Your task to perform on an android device: Look up the best rated gaming chair on Target. Image 0: 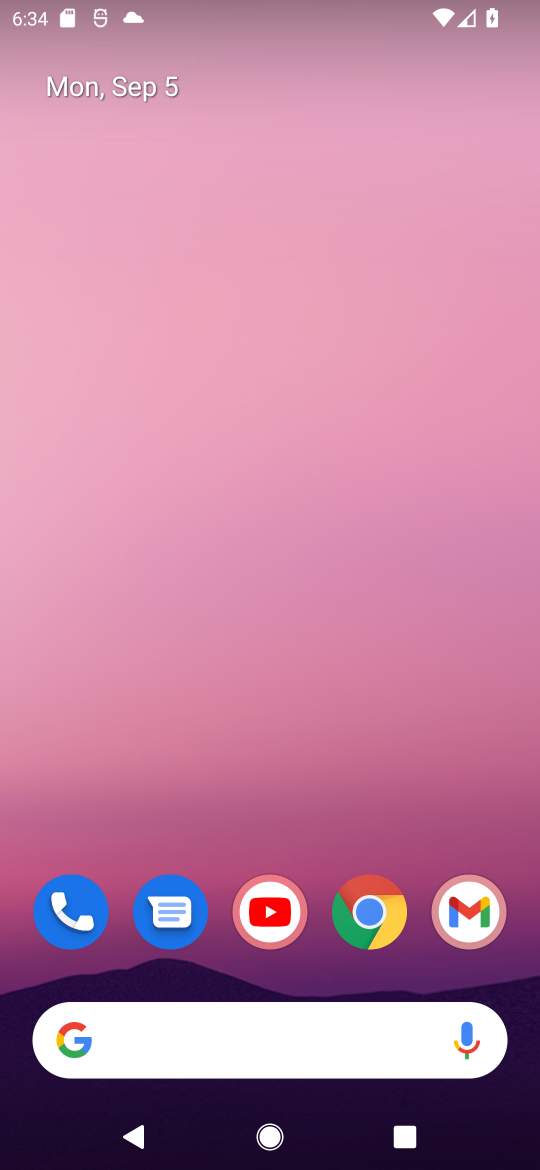
Step 0: click (363, 917)
Your task to perform on an android device: Look up the best rated gaming chair on Target. Image 1: 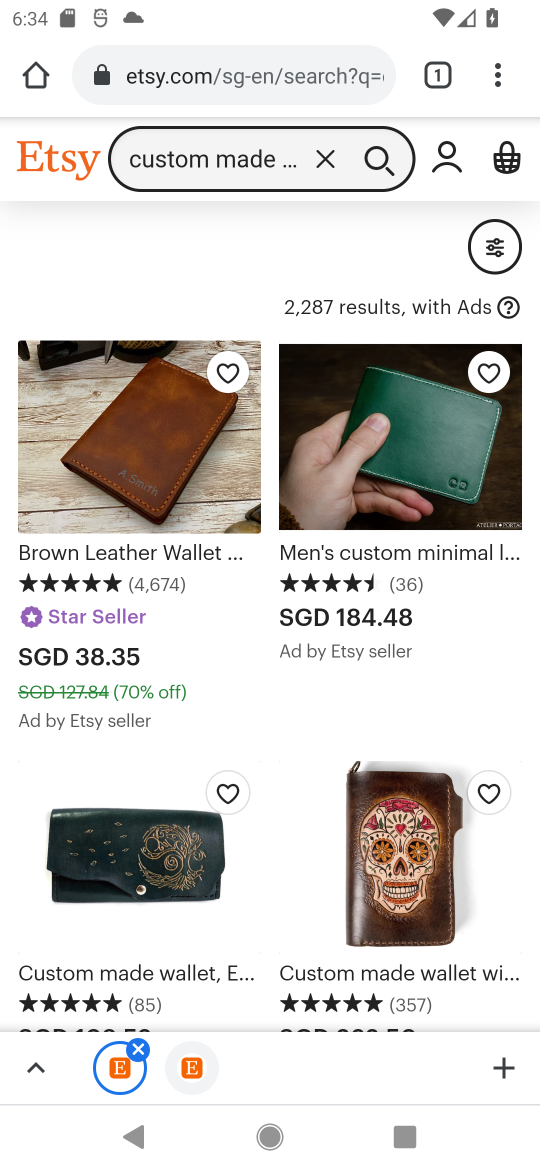
Step 1: click (275, 70)
Your task to perform on an android device: Look up the best rated gaming chair on Target. Image 2: 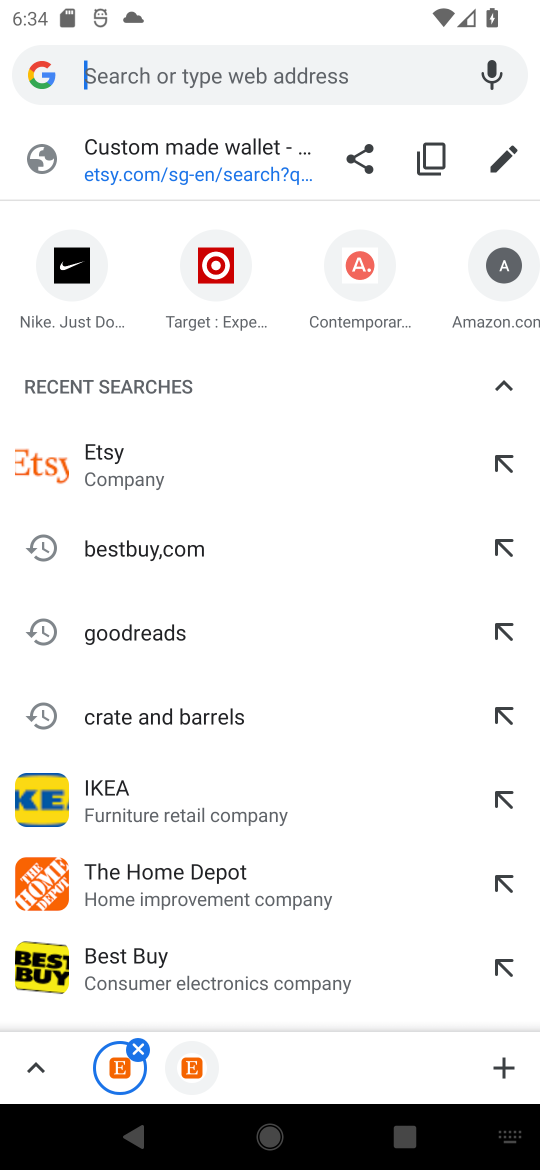
Step 2: type "Target"
Your task to perform on an android device: Look up the best rated gaming chair on Target. Image 3: 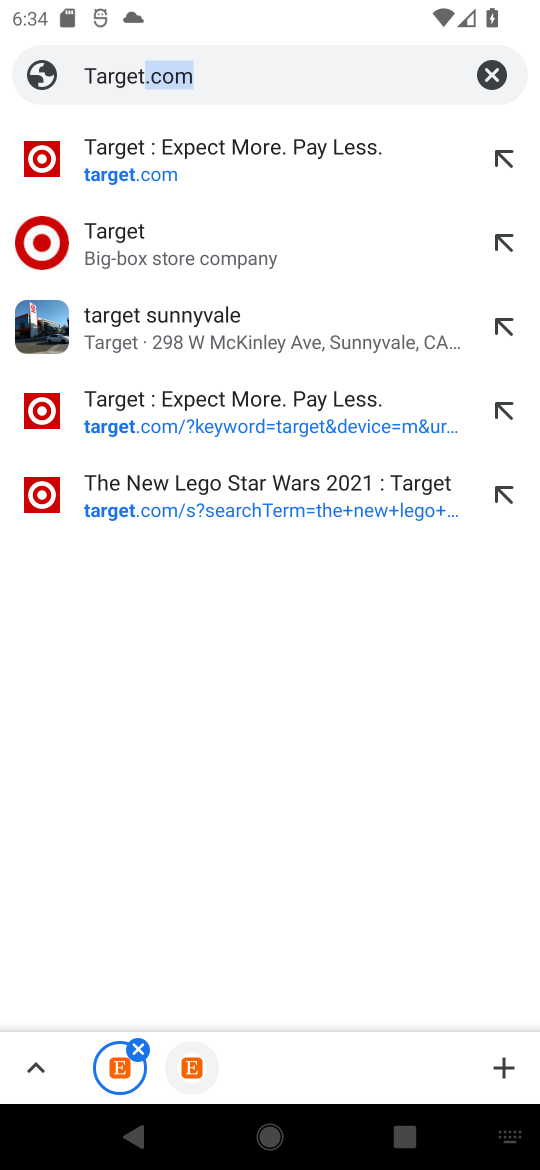
Step 3: click (159, 173)
Your task to perform on an android device: Look up the best rated gaming chair on Target. Image 4: 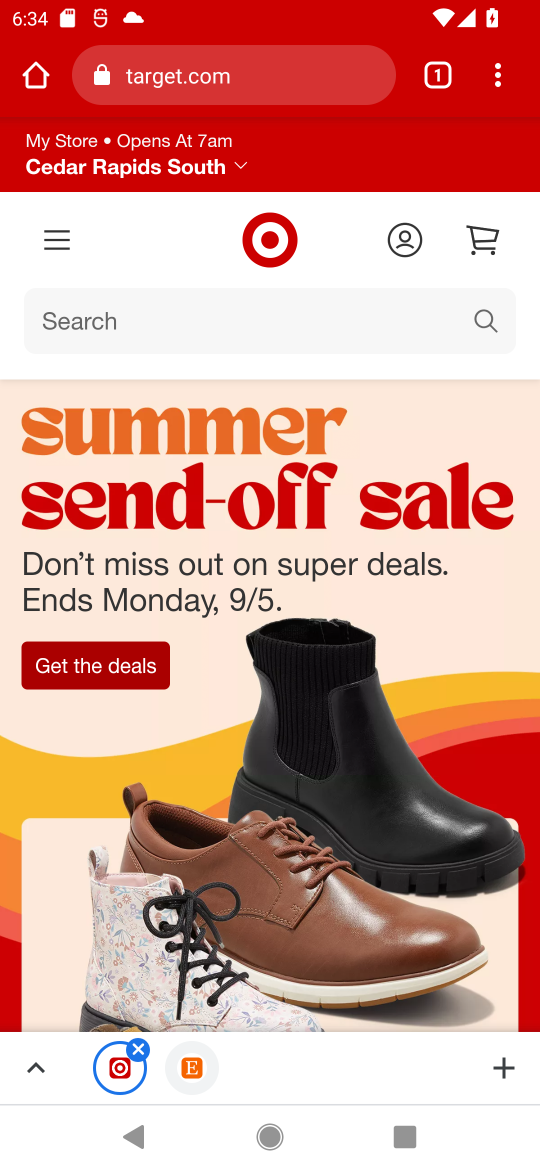
Step 4: click (321, 328)
Your task to perform on an android device: Look up the best rated gaming chair on Target. Image 5: 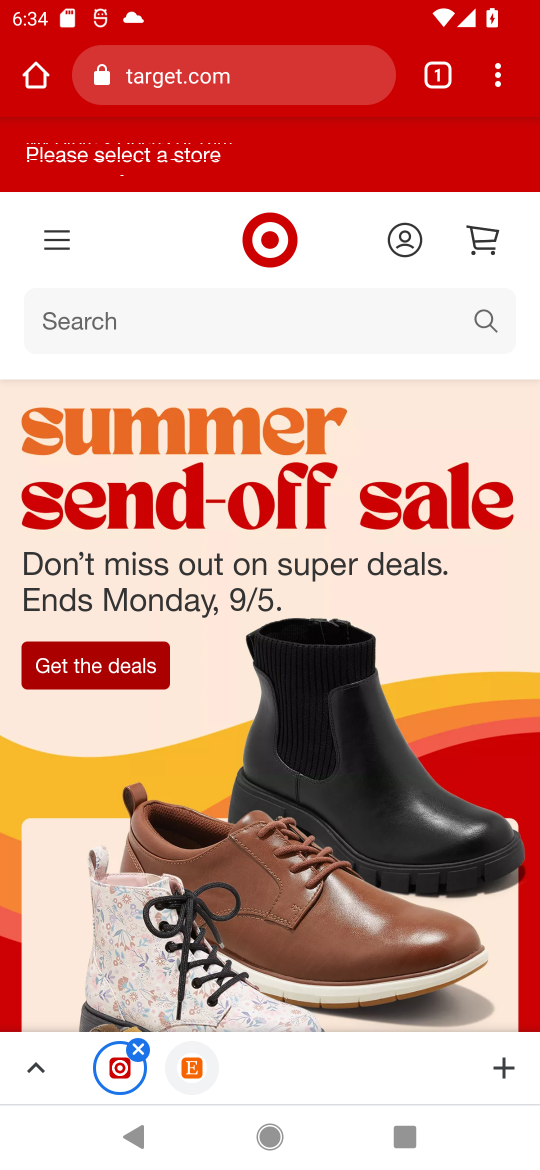
Step 5: click (232, 311)
Your task to perform on an android device: Look up the best rated gaming chair on Target. Image 6: 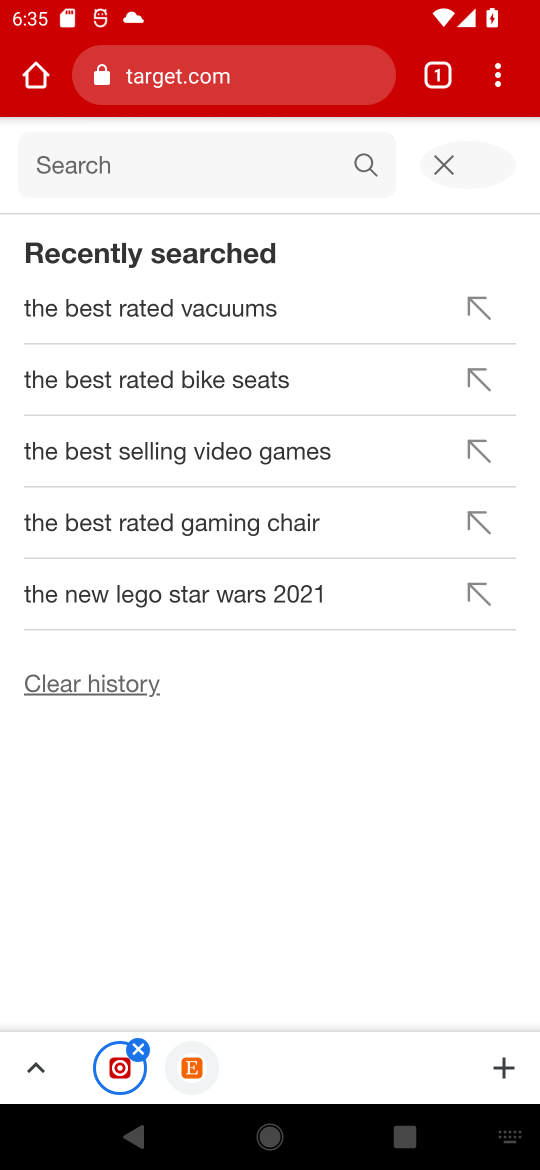
Step 6: type "the best rated gaming chair"
Your task to perform on an android device: Look up the best rated gaming chair on Target. Image 7: 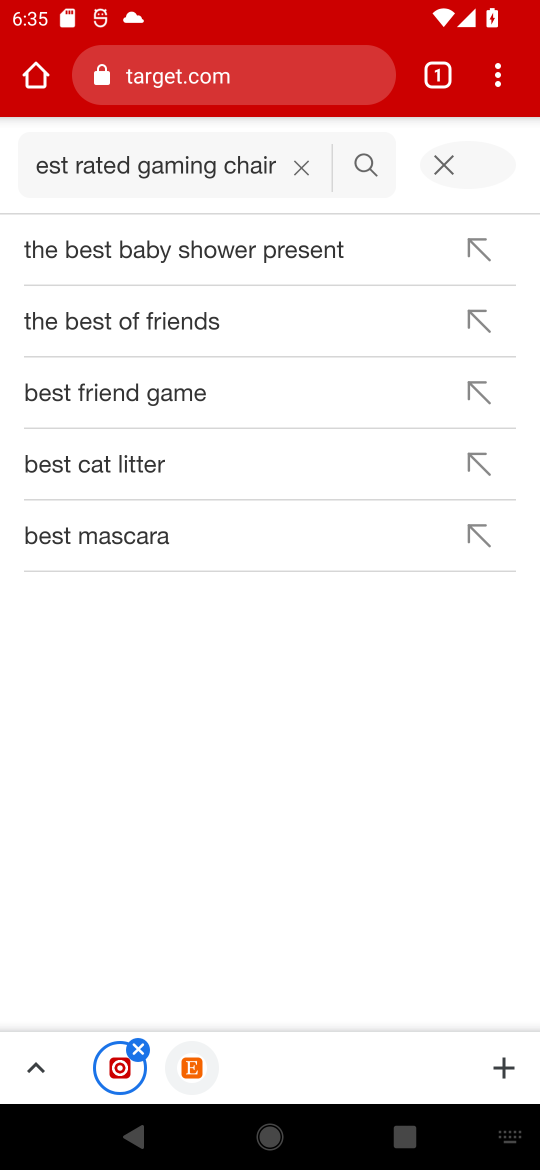
Step 7: click (365, 170)
Your task to perform on an android device: Look up the best rated gaming chair on Target. Image 8: 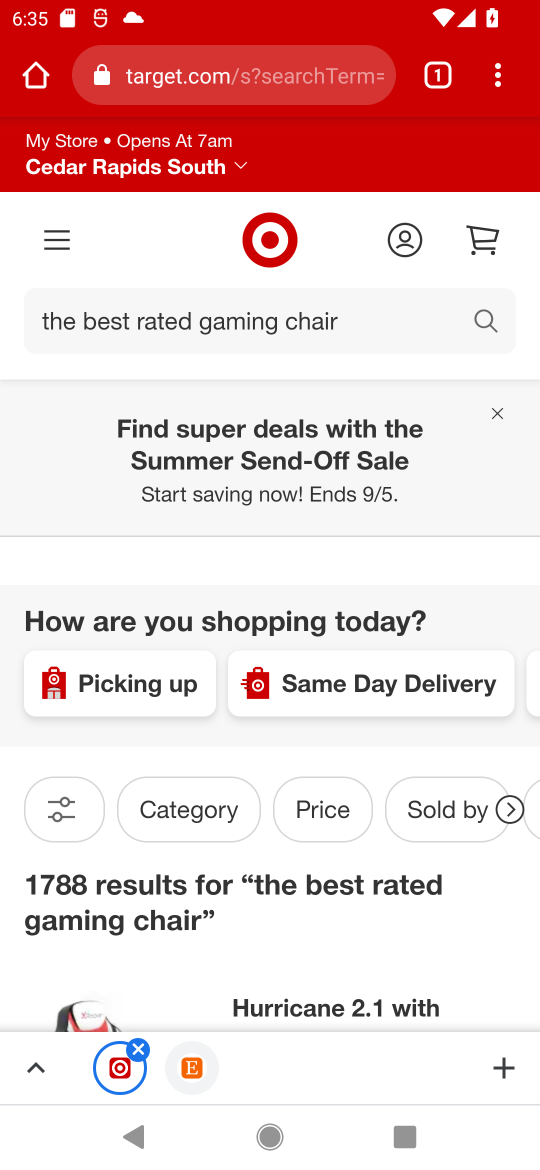
Step 8: task complete